Your task to perform on an android device: set the stopwatch Image 0: 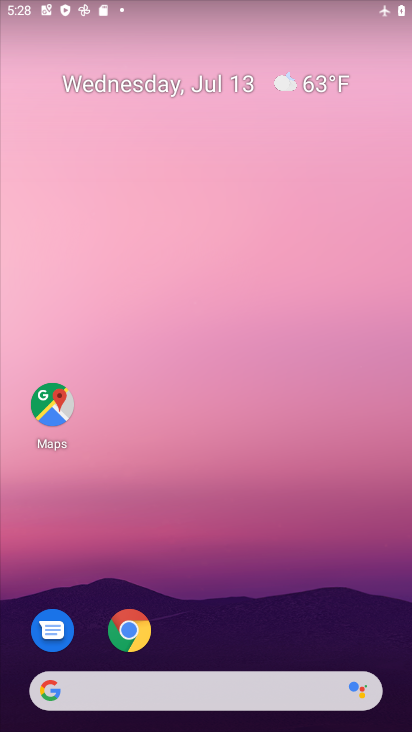
Step 0: drag from (218, 653) to (254, 74)
Your task to perform on an android device: set the stopwatch Image 1: 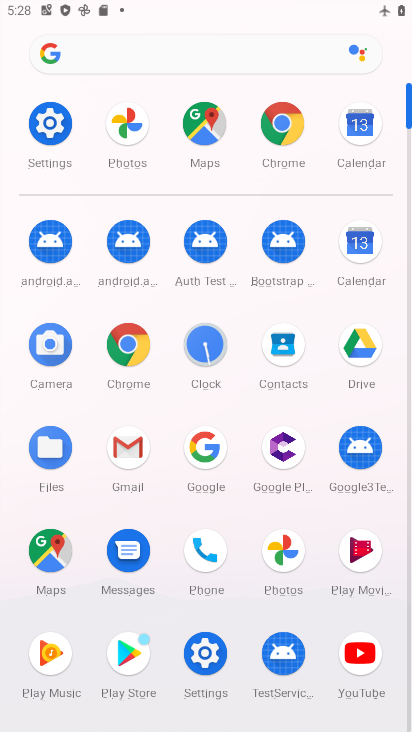
Step 1: click (199, 345)
Your task to perform on an android device: set the stopwatch Image 2: 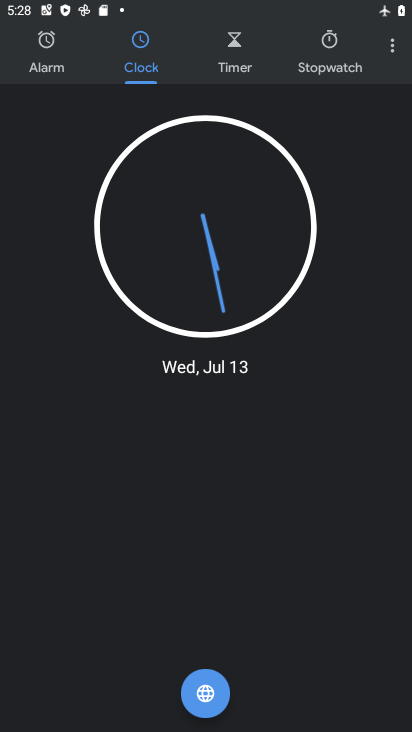
Step 2: click (320, 49)
Your task to perform on an android device: set the stopwatch Image 3: 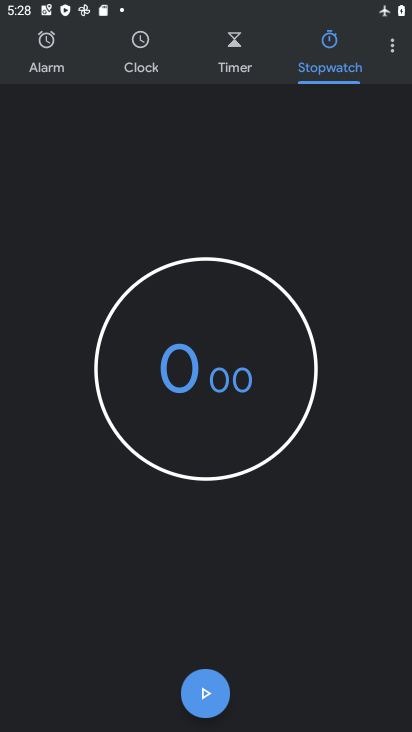
Step 3: click (199, 695)
Your task to perform on an android device: set the stopwatch Image 4: 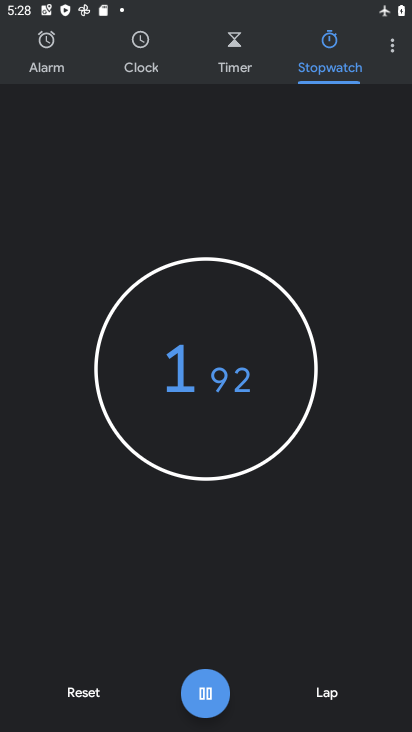
Step 4: task complete